Your task to perform on an android device: Do I have any events this weekend? Image 0: 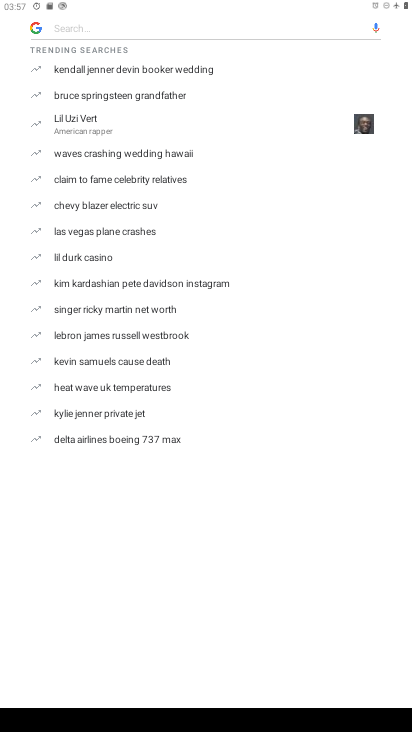
Step 0: press home button
Your task to perform on an android device: Do I have any events this weekend? Image 1: 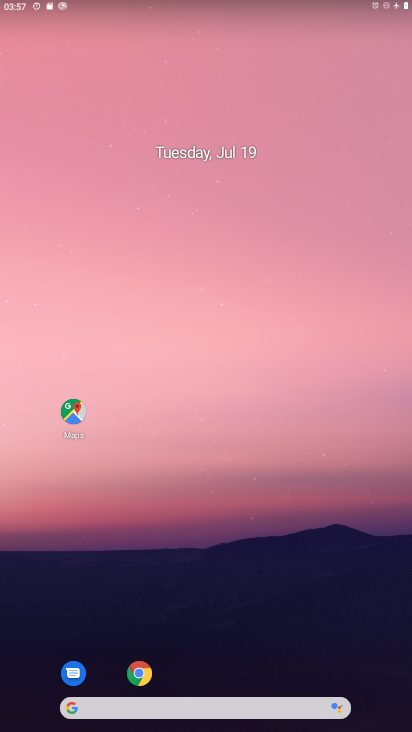
Step 1: drag from (237, 644) to (241, 200)
Your task to perform on an android device: Do I have any events this weekend? Image 2: 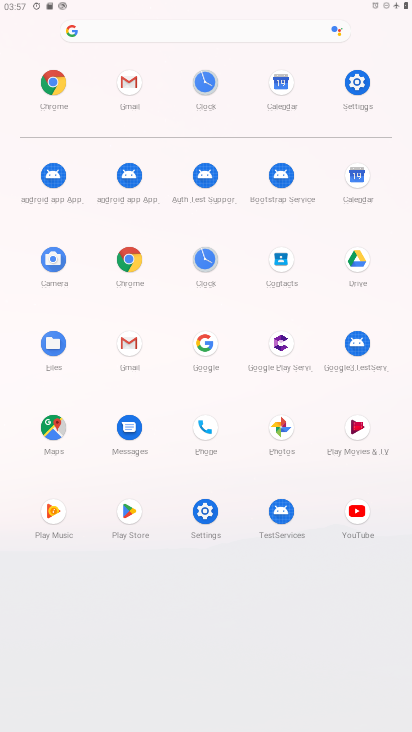
Step 2: click (365, 182)
Your task to perform on an android device: Do I have any events this weekend? Image 3: 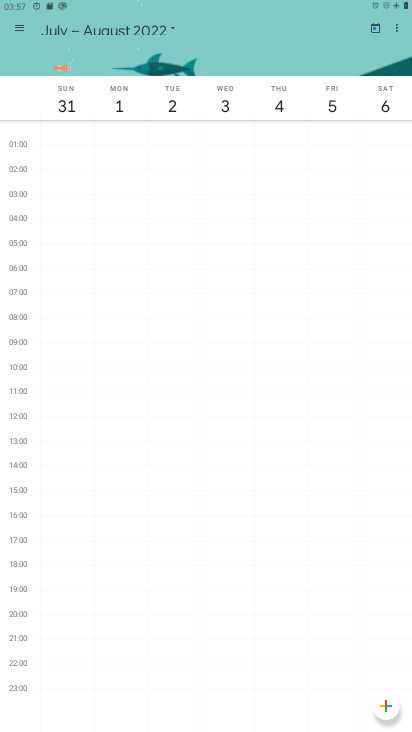
Step 3: drag from (81, 98) to (351, 59)
Your task to perform on an android device: Do I have any events this weekend? Image 4: 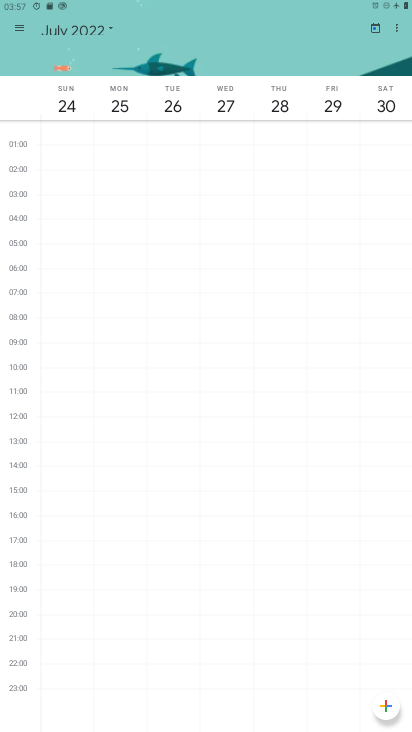
Step 4: drag from (83, 109) to (410, 155)
Your task to perform on an android device: Do I have any events this weekend? Image 5: 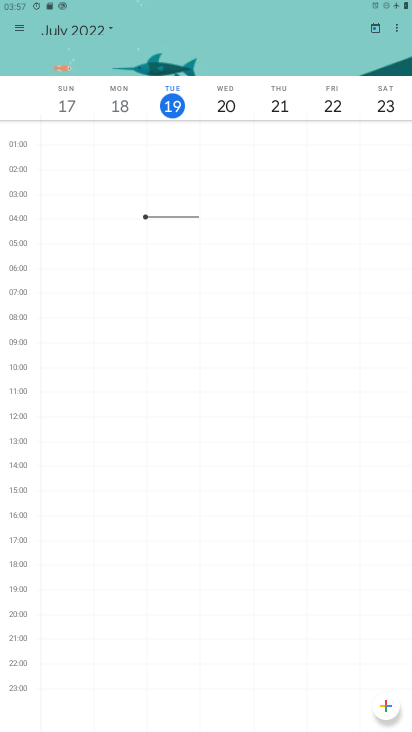
Step 5: click (20, 28)
Your task to perform on an android device: Do I have any events this weekend? Image 6: 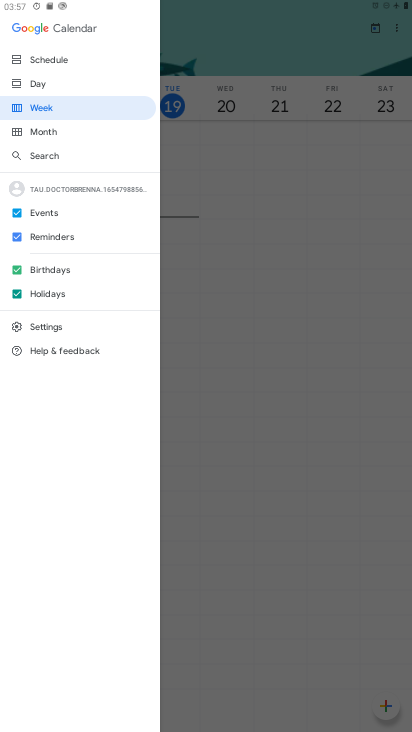
Step 6: click (62, 231)
Your task to perform on an android device: Do I have any events this weekend? Image 7: 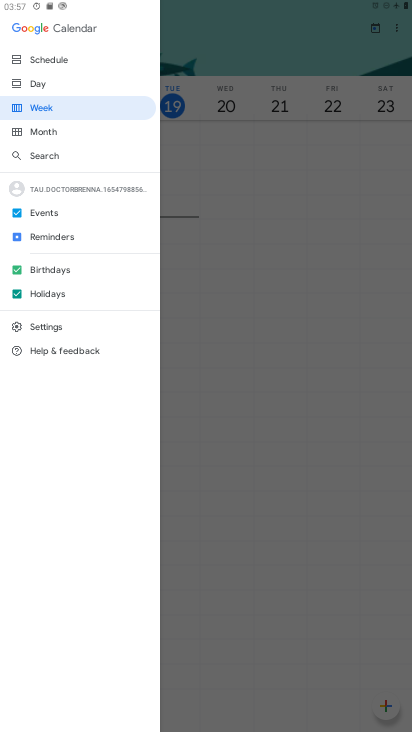
Step 7: click (53, 268)
Your task to perform on an android device: Do I have any events this weekend? Image 8: 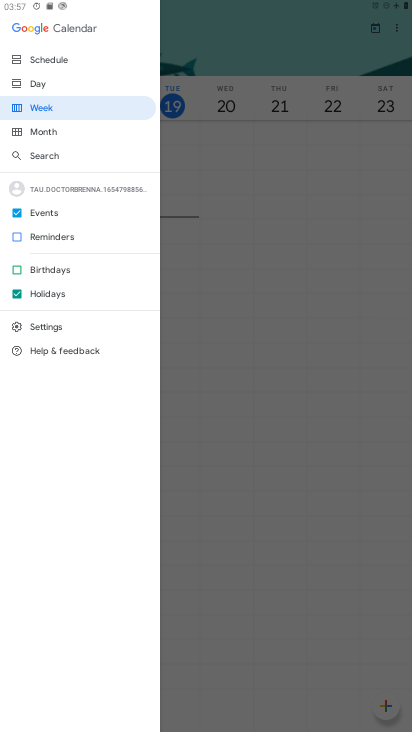
Step 8: click (51, 303)
Your task to perform on an android device: Do I have any events this weekend? Image 9: 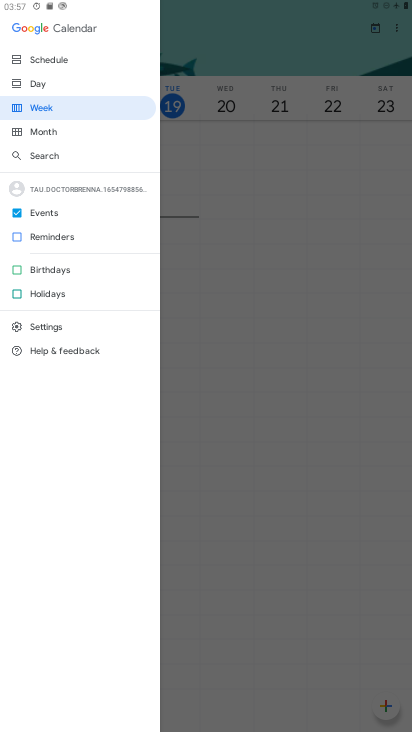
Step 9: click (50, 109)
Your task to perform on an android device: Do I have any events this weekend? Image 10: 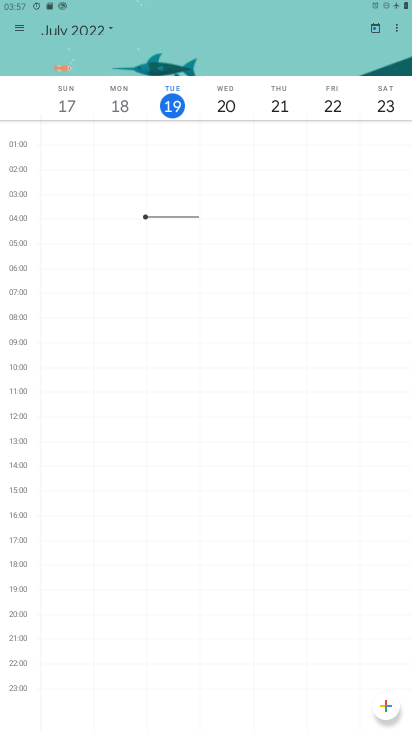
Step 10: task complete